Your task to perform on an android device: turn on location history Image 0: 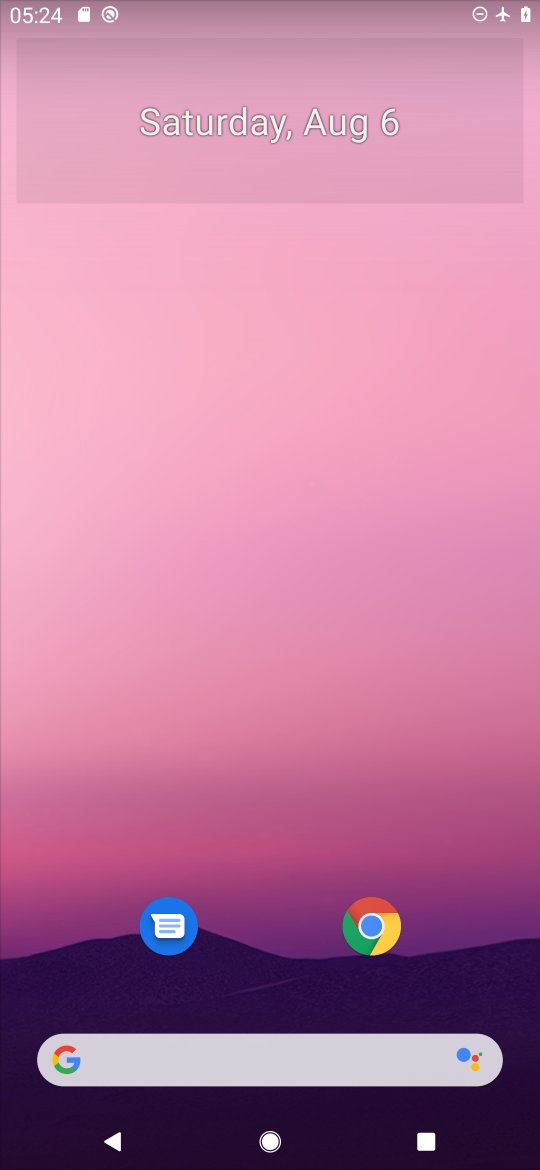
Step 0: drag from (254, 891) to (254, 354)
Your task to perform on an android device: turn on location history Image 1: 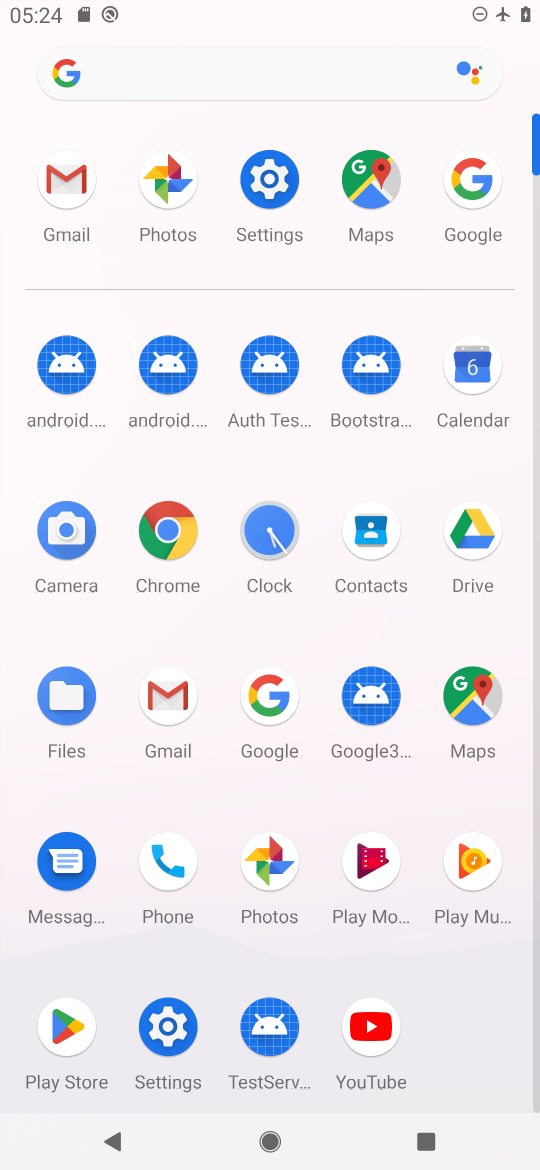
Step 1: click (180, 1026)
Your task to perform on an android device: turn on location history Image 2: 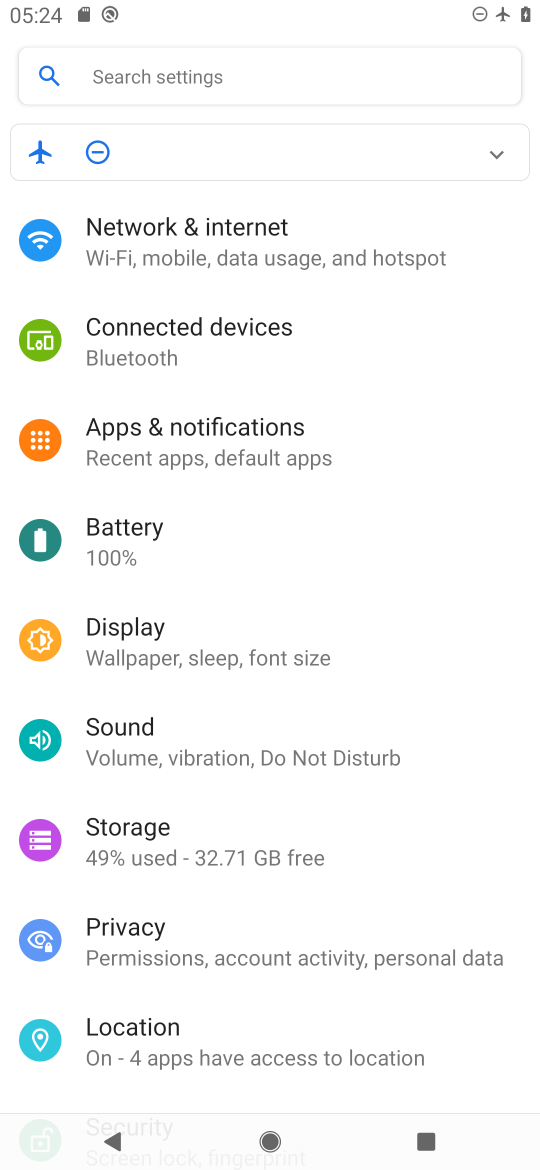
Step 2: click (208, 1026)
Your task to perform on an android device: turn on location history Image 3: 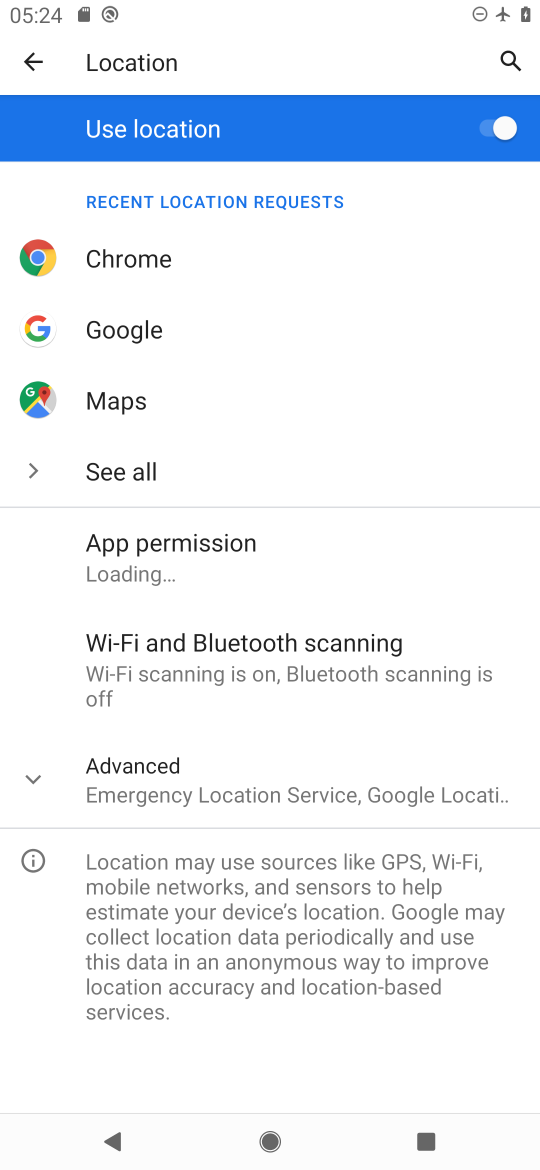
Step 3: click (242, 778)
Your task to perform on an android device: turn on location history Image 4: 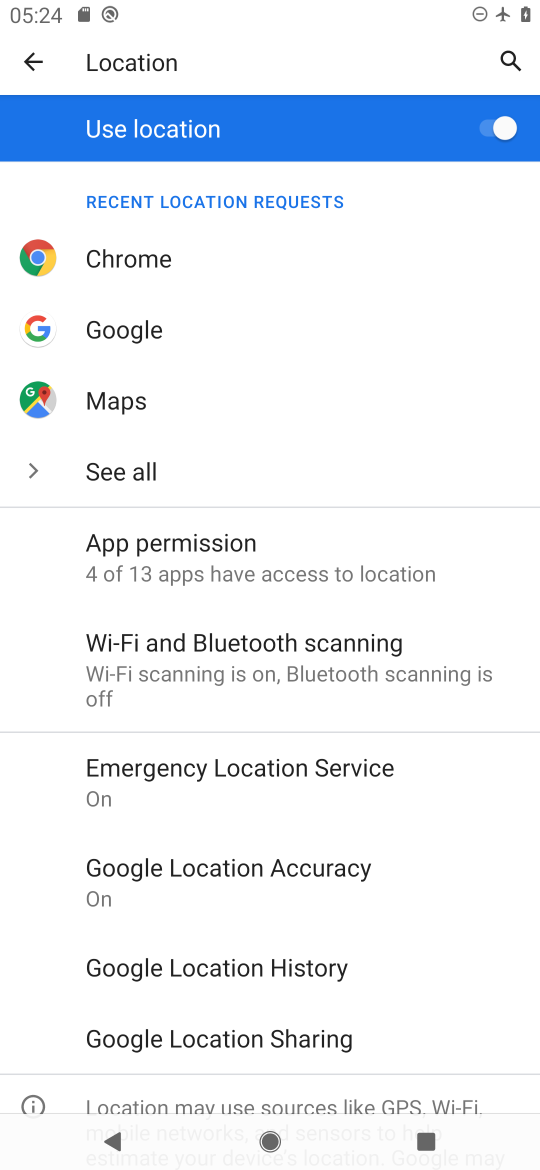
Step 4: click (336, 960)
Your task to perform on an android device: turn on location history Image 5: 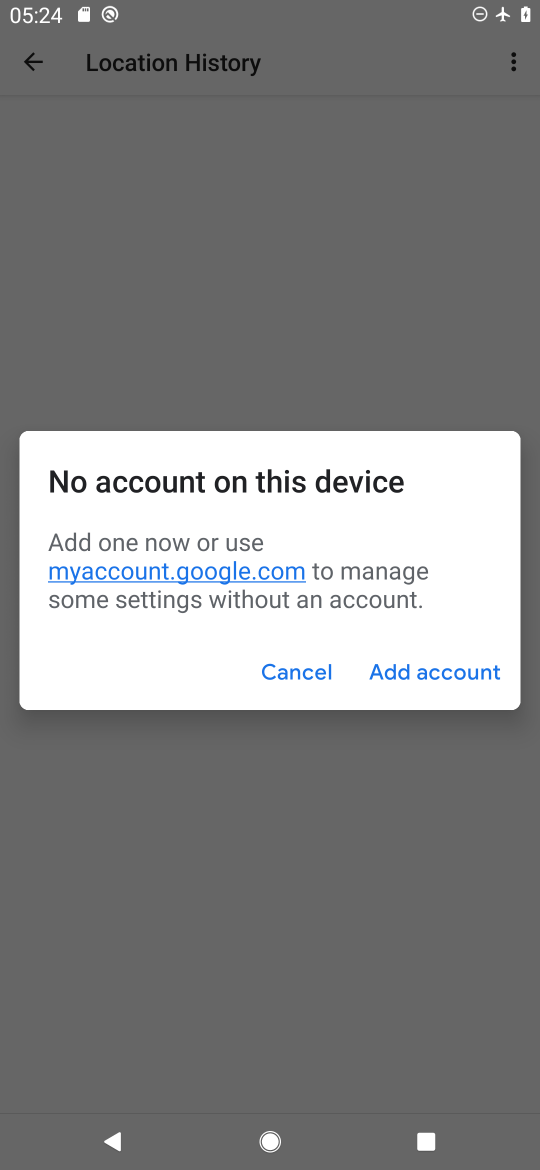
Step 5: task complete